Your task to perform on an android device: Turn on the flashlight Image 0: 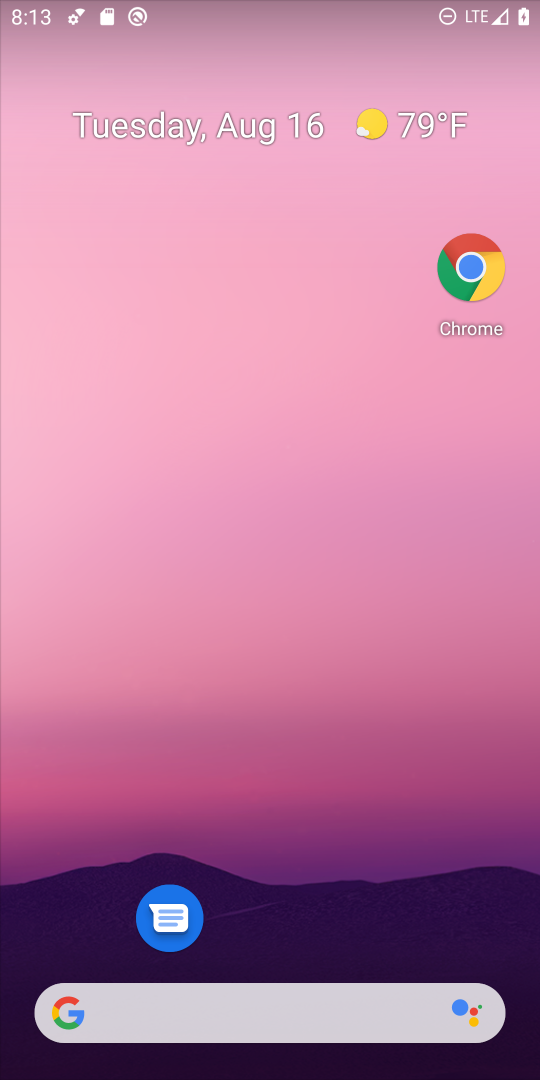
Step 0: drag from (275, 28) to (238, 582)
Your task to perform on an android device: Turn on the flashlight Image 1: 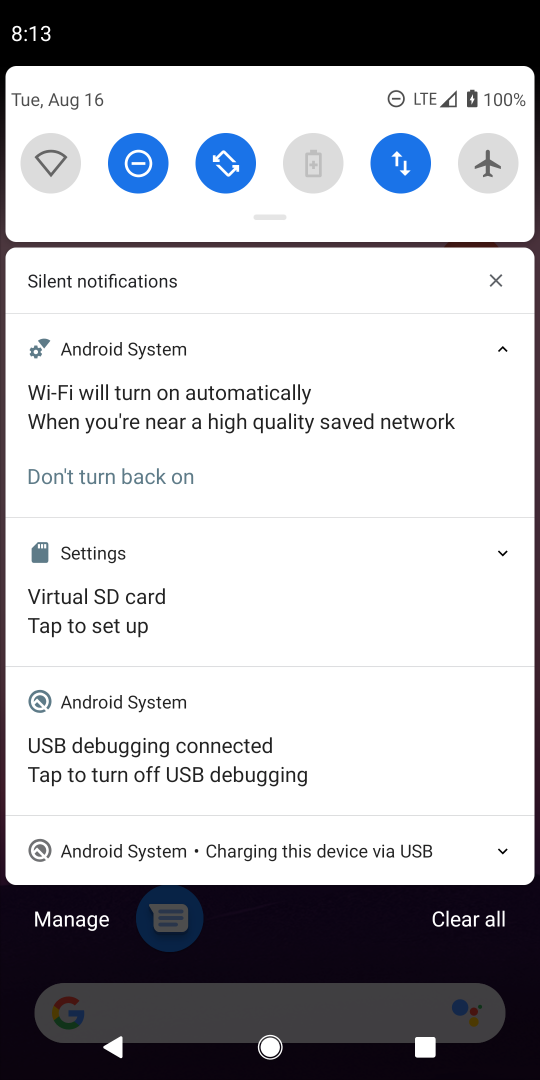
Step 1: task complete